Your task to perform on an android device: What's on my calendar tomorrow? Image 0: 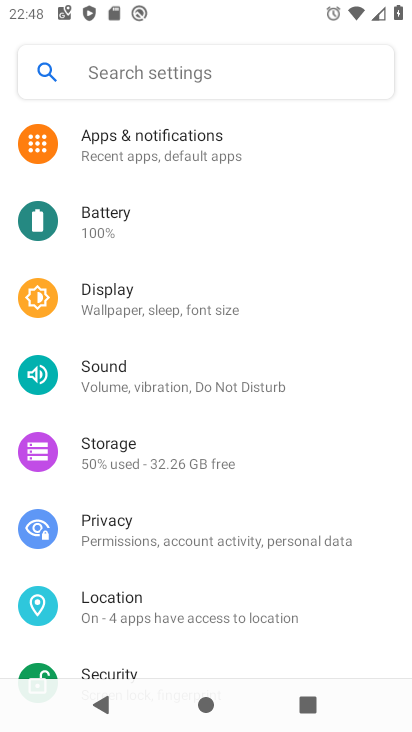
Step 0: press home button
Your task to perform on an android device: What's on my calendar tomorrow? Image 1: 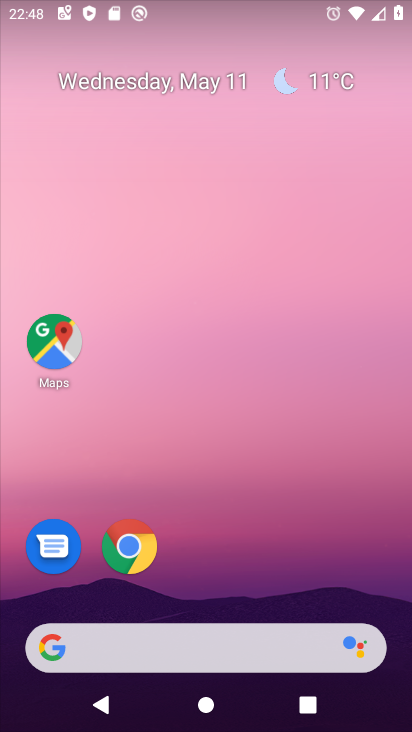
Step 1: drag from (404, 641) to (260, 138)
Your task to perform on an android device: What's on my calendar tomorrow? Image 2: 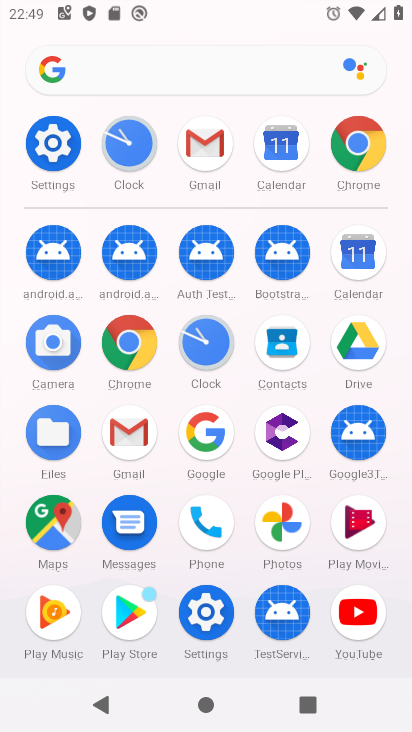
Step 2: click (362, 251)
Your task to perform on an android device: What's on my calendar tomorrow? Image 3: 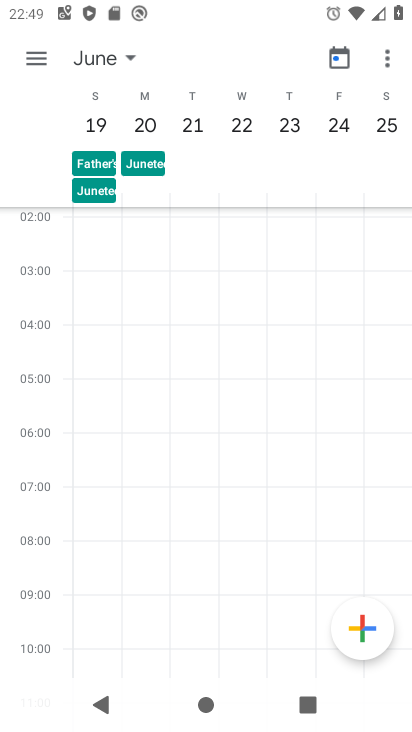
Step 3: click (35, 54)
Your task to perform on an android device: What's on my calendar tomorrow? Image 4: 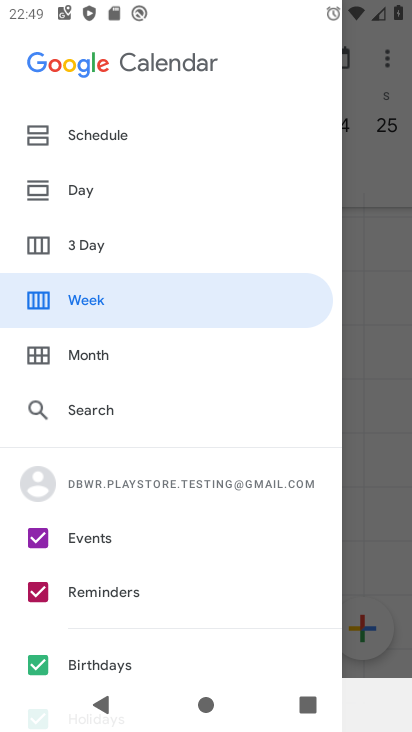
Step 4: click (79, 185)
Your task to perform on an android device: What's on my calendar tomorrow? Image 5: 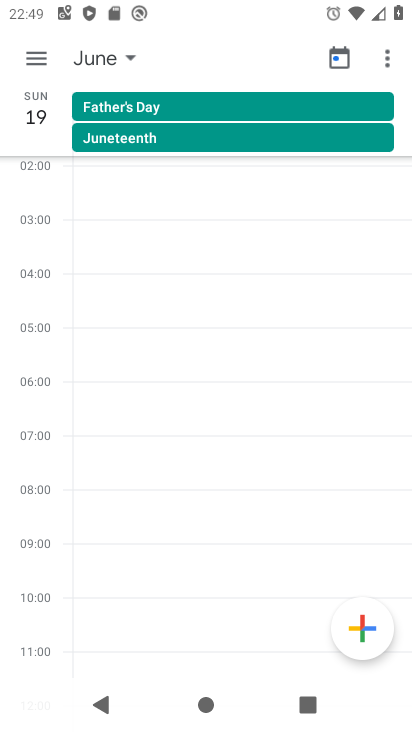
Step 5: click (127, 51)
Your task to perform on an android device: What's on my calendar tomorrow? Image 6: 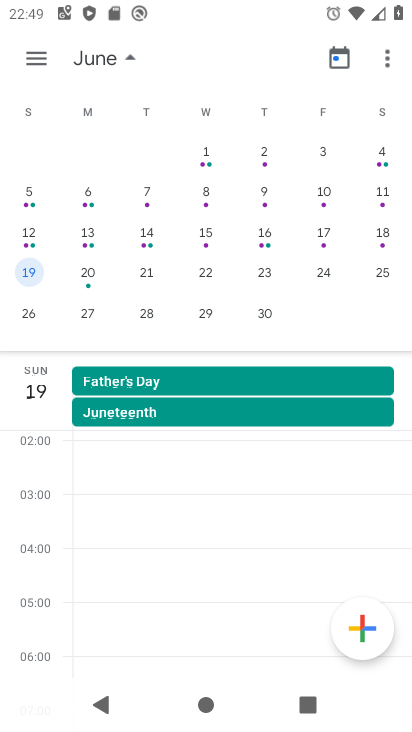
Step 6: drag from (41, 254) to (385, 226)
Your task to perform on an android device: What's on my calendar tomorrow? Image 7: 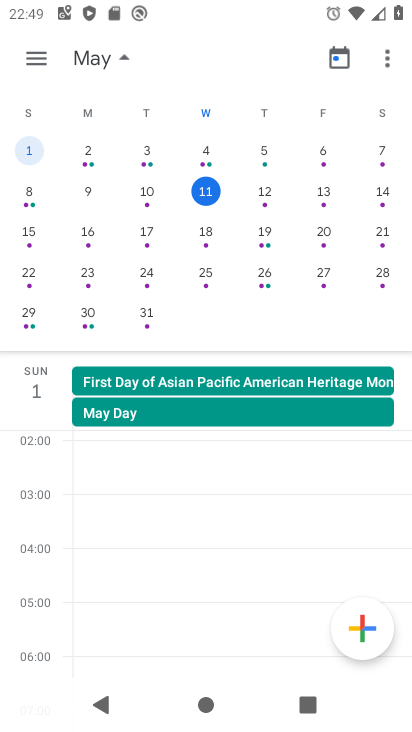
Step 7: click (260, 189)
Your task to perform on an android device: What's on my calendar tomorrow? Image 8: 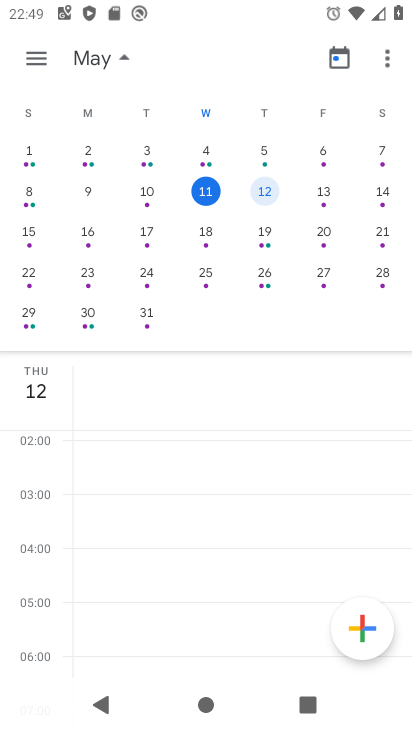
Step 8: task complete